Your task to perform on an android device: Do I have any events today? Image 0: 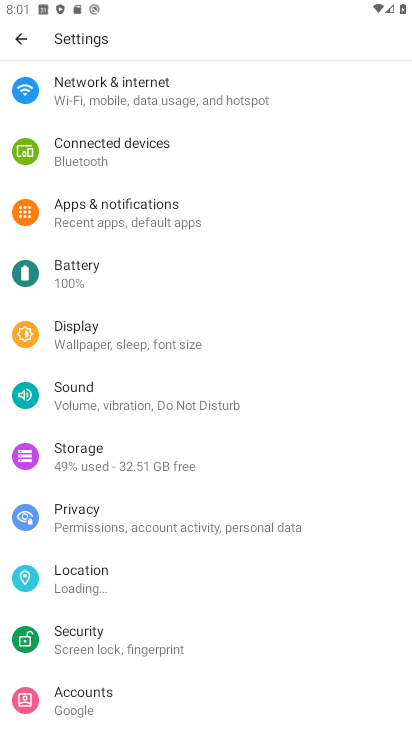
Step 0: press home button
Your task to perform on an android device: Do I have any events today? Image 1: 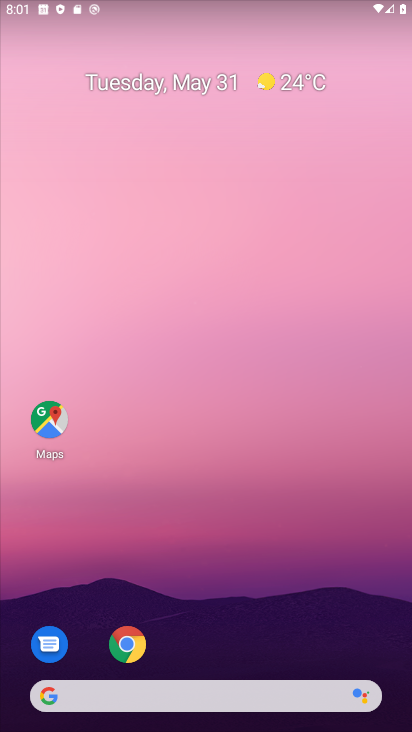
Step 1: drag from (306, 544) to (277, 200)
Your task to perform on an android device: Do I have any events today? Image 2: 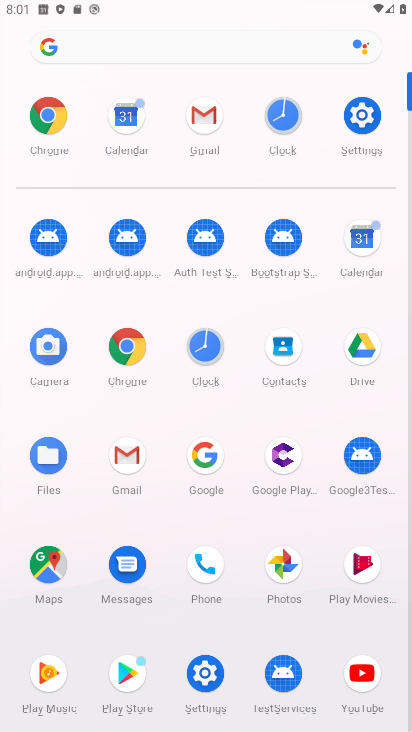
Step 2: click (366, 246)
Your task to perform on an android device: Do I have any events today? Image 3: 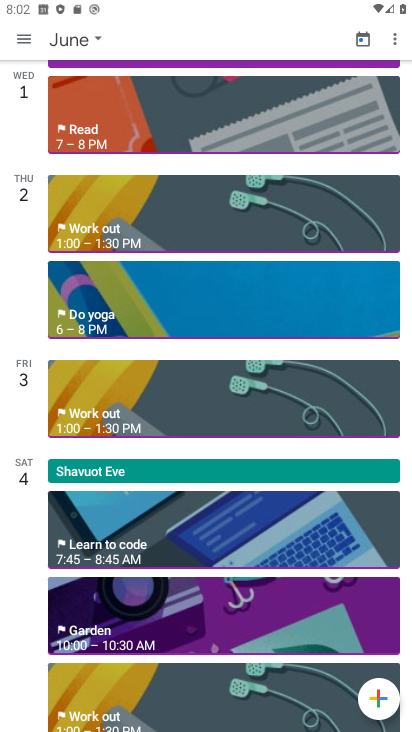
Step 3: task complete